Your task to perform on an android device: turn on the 24-hour format for clock Image 0: 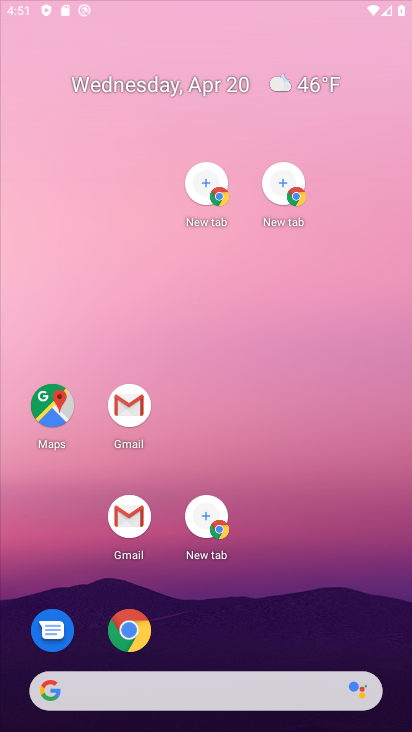
Step 0: drag from (131, 44) to (288, 73)
Your task to perform on an android device: turn on the 24-hour format for clock Image 1: 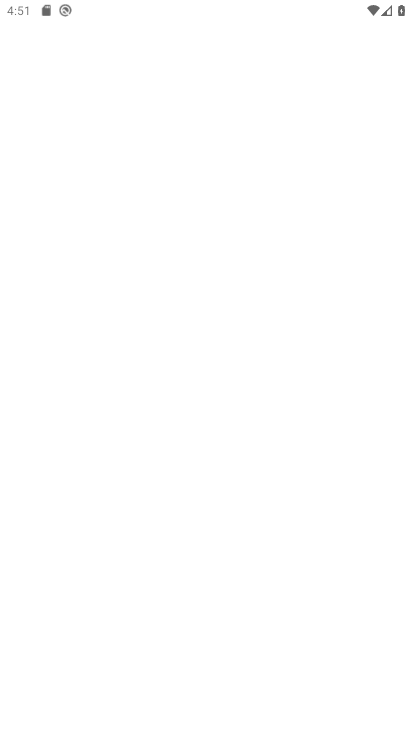
Step 1: drag from (217, 263) to (160, 66)
Your task to perform on an android device: turn on the 24-hour format for clock Image 2: 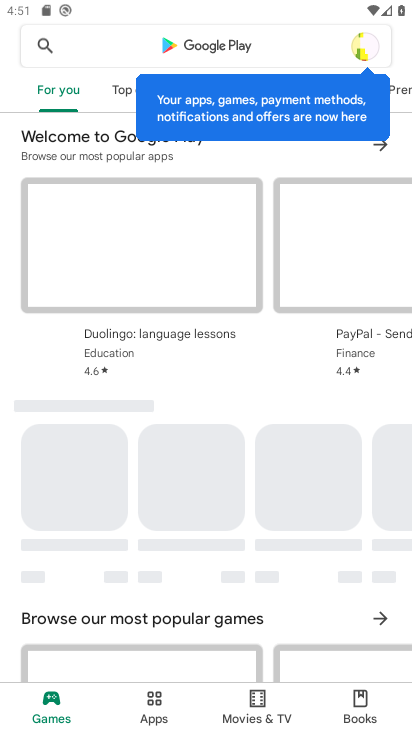
Step 2: press home button
Your task to perform on an android device: turn on the 24-hour format for clock Image 3: 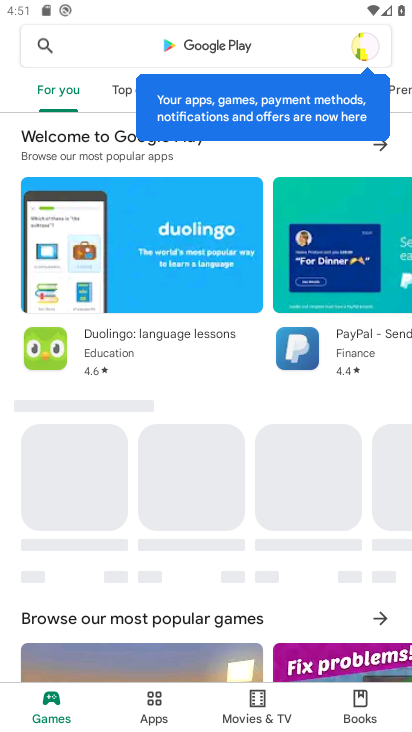
Step 3: press home button
Your task to perform on an android device: turn on the 24-hour format for clock Image 4: 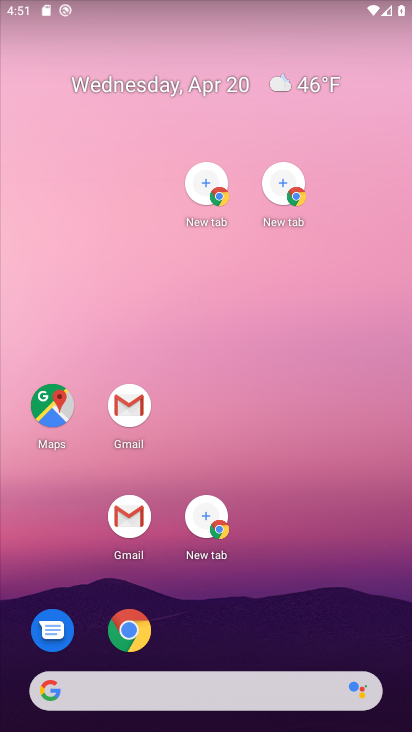
Step 4: press home button
Your task to perform on an android device: turn on the 24-hour format for clock Image 5: 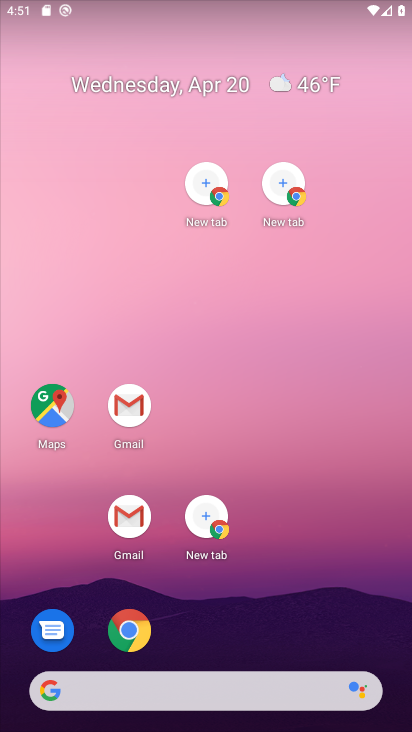
Step 5: drag from (238, 643) to (192, 76)
Your task to perform on an android device: turn on the 24-hour format for clock Image 6: 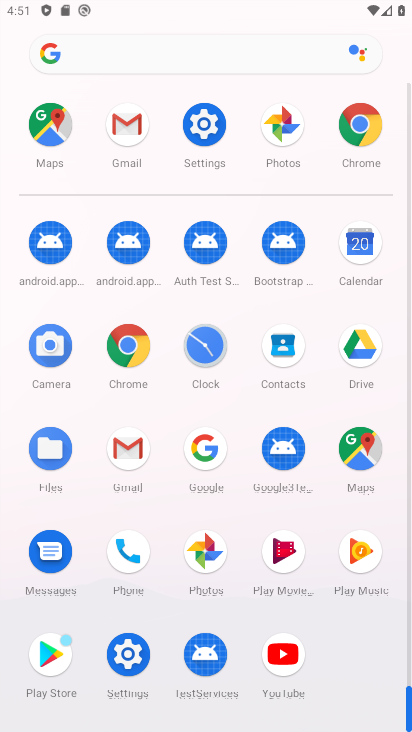
Step 6: click (201, 352)
Your task to perform on an android device: turn on the 24-hour format for clock Image 7: 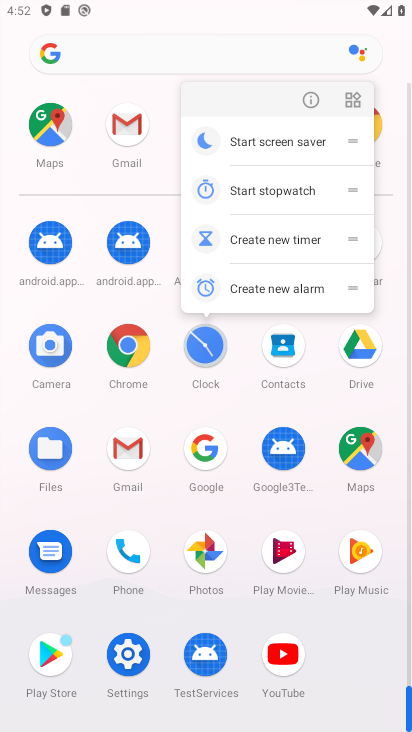
Step 7: click (390, 297)
Your task to perform on an android device: turn on the 24-hour format for clock Image 8: 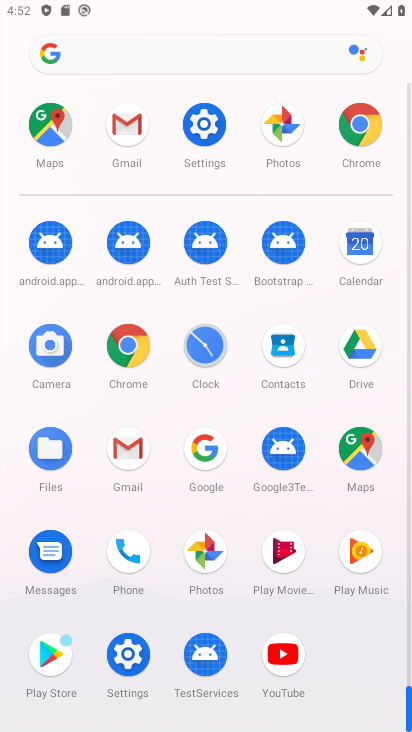
Step 8: click (390, 297)
Your task to perform on an android device: turn on the 24-hour format for clock Image 9: 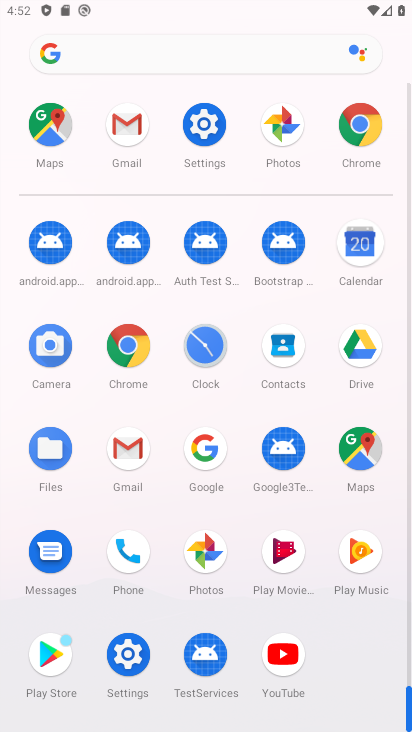
Step 9: click (191, 346)
Your task to perform on an android device: turn on the 24-hour format for clock Image 10: 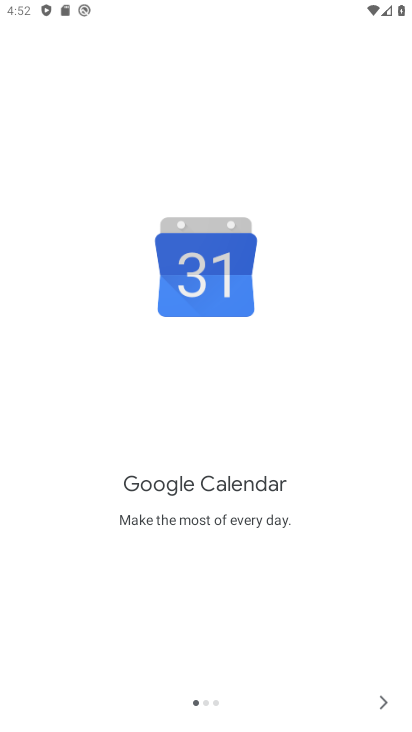
Step 10: press back button
Your task to perform on an android device: turn on the 24-hour format for clock Image 11: 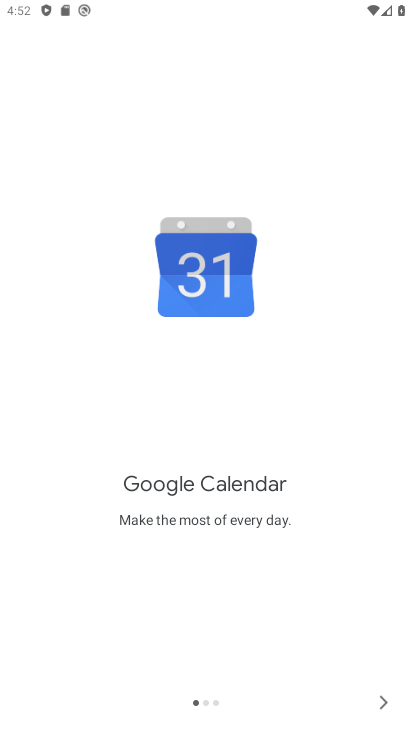
Step 11: press back button
Your task to perform on an android device: turn on the 24-hour format for clock Image 12: 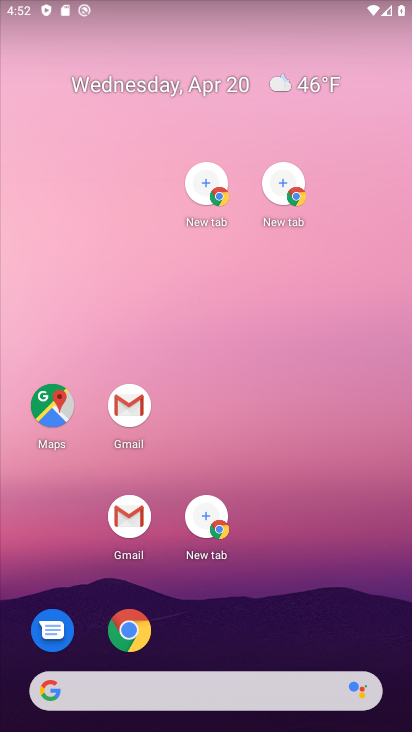
Step 12: drag from (300, 712) to (218, 43)
Your task to perform on an android device: turn on the 24-hour format for clock Image 13: 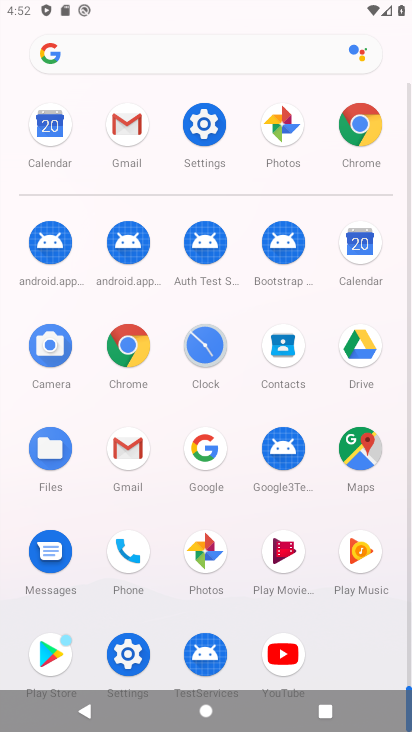
Step 13: click (215, 336)
Your task to perform on an android device: turn on the 24-hour format for clock Image 14: 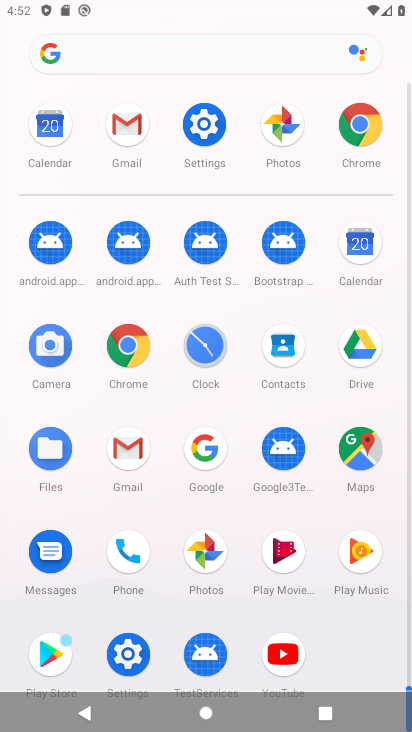
Step 14: click (215, 336)
Your task to perform on an android device: turn on the 24-hour format for clock Image 15: 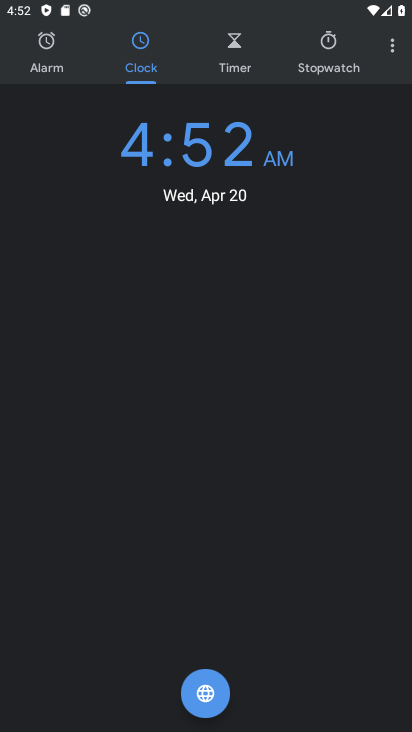
Step 15: click (391, 45)
Your task to perform on an android device: turn on the 24-hour format for clock Image 16: 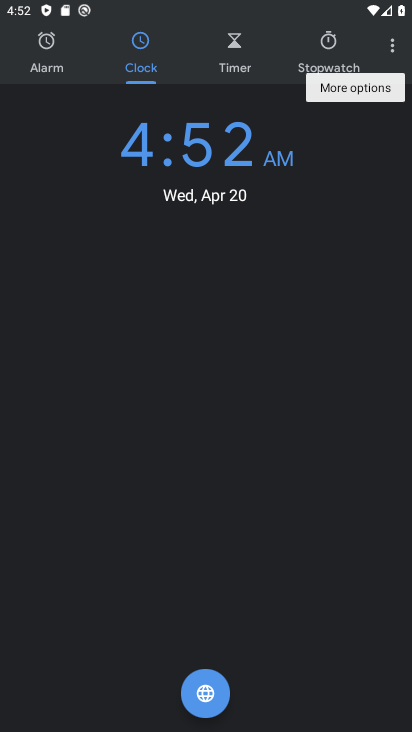
Step 16: click (391, 45)
Your task to perform on an android device: turn on the 24-hour format for clock Image 17: 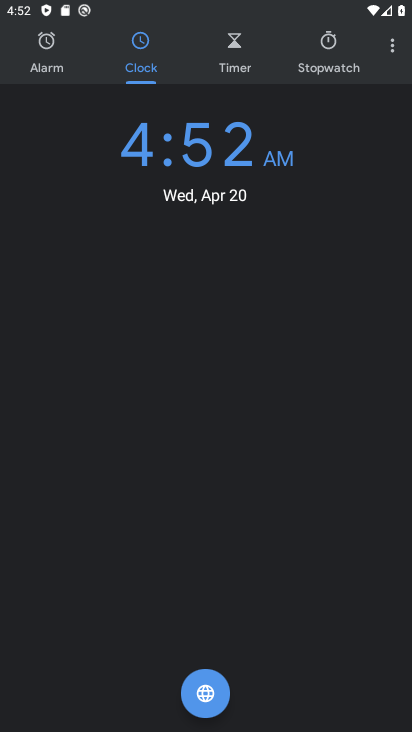
Step 17: click (391, 45)
Your task to perform on an android device: turn on the 24-hour format for clock Image 18: 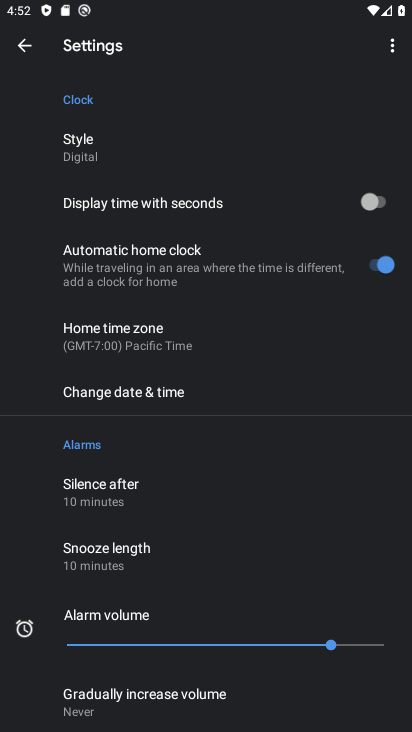
Step 18: click (142, 401)
Your task to perform on an android device: turn on the 24-hour format for clock Image 19: 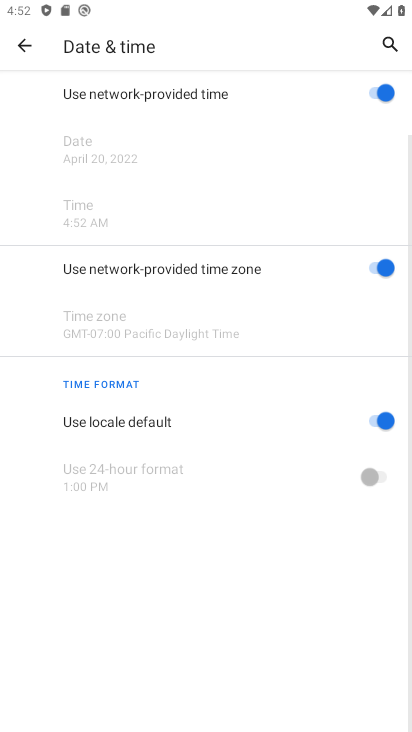
Step 19: drag from (210, 540) to (174, 128)
Your task to perform on an android device: turn on the 24-hour format for clock Image 20: 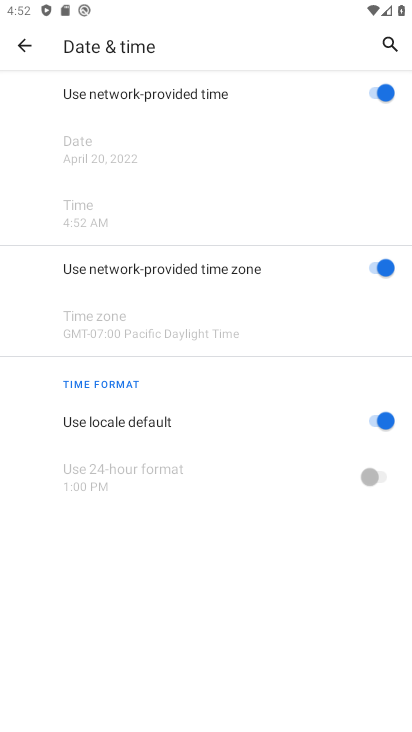
Step 20: click (385, 410)
Your task to perform on an android device: turn on the 24-hour format for clock Image 21: 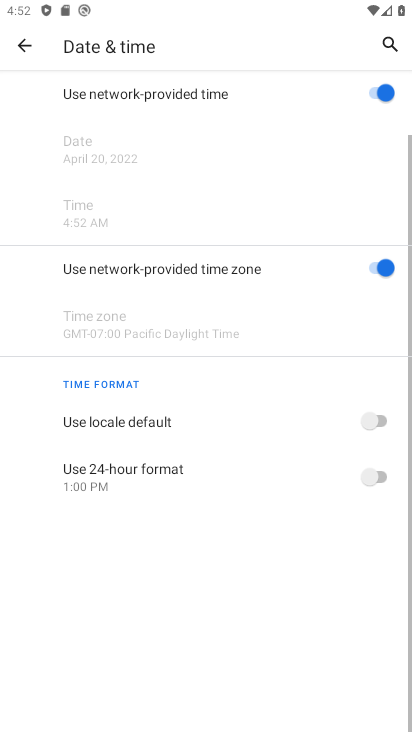
Step 21: click (370, 477)
Your task to perform on an android device: turn on the 24-hour format for clock Image 22: 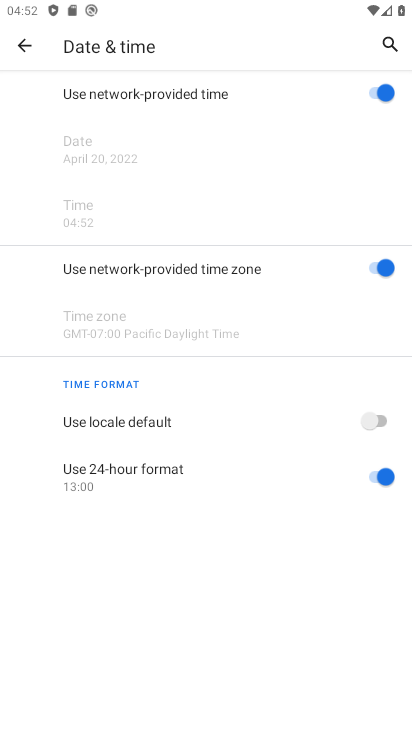
Step 22: task complete